Your task to perform on an android device: change the clock style Image 0: 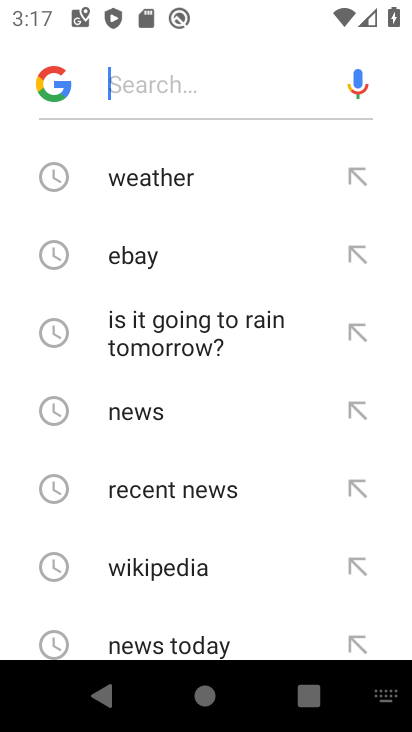
Step 0: press home button
Your task to perform on an android device: change the clock style Image 1: 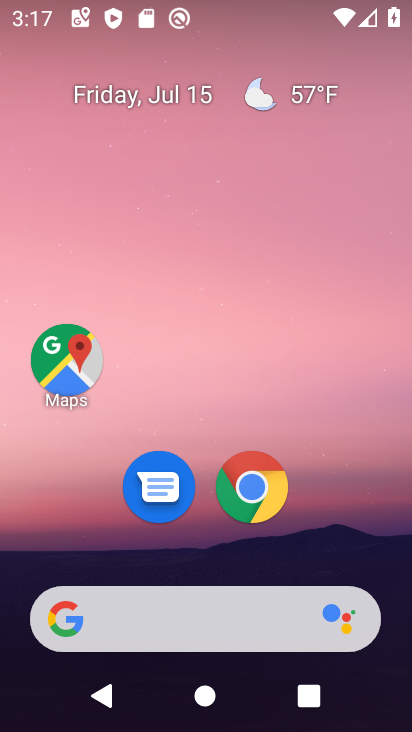
Step 1: drag from (268, 620) to (333, 179)
Your task to perform on an android device: change the clock style Image 2: 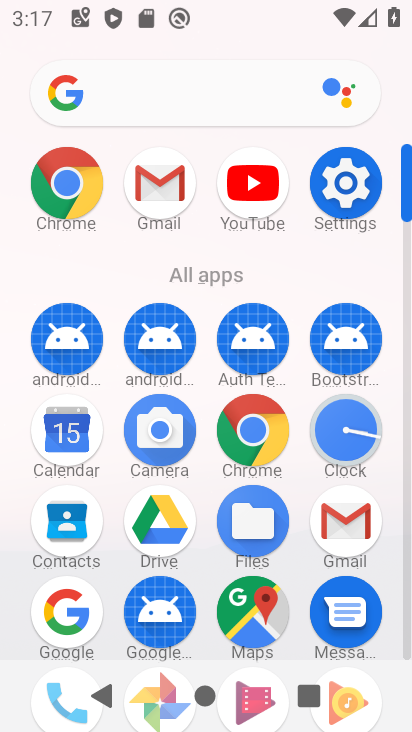
Step 2: drag from (239, 519) to (242, 340)
Your task to perform on an android device: change the clock style Image 3: 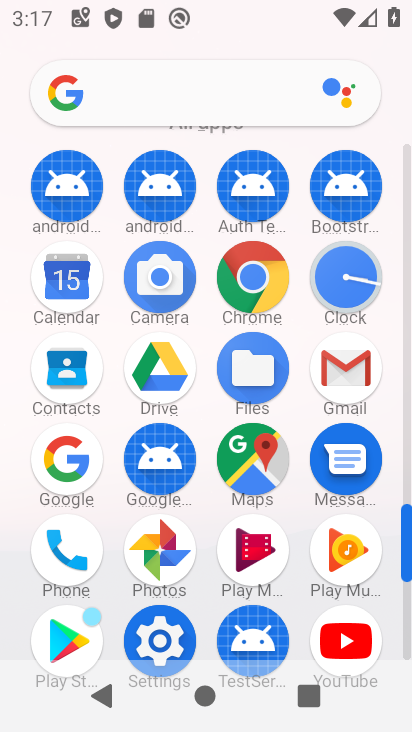
Step 3: drag from (272, 491) to (283, 353)
Your task to perform on an android device: change the clock style Image 4: 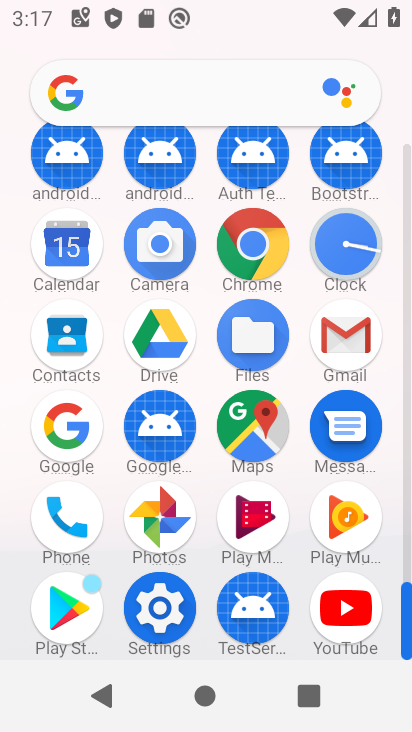
Step 4: click (341, 267)
Your task to perform on an android device: change the clock style Image 5: 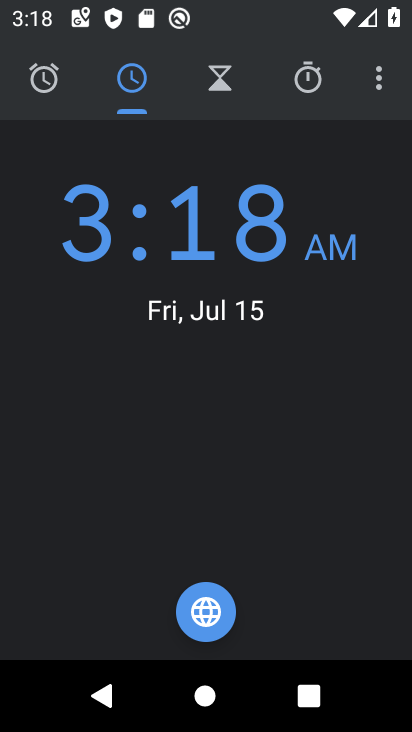
Step 5: click (386, 81)
Your task to perform on an android device: change the clock style Image 6: 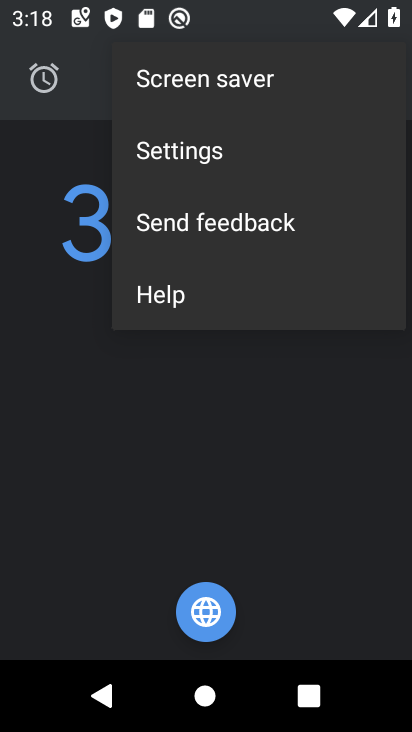
Step 6: click (213, 158)
Your task to perform on an android device: change the clock style Image 7: 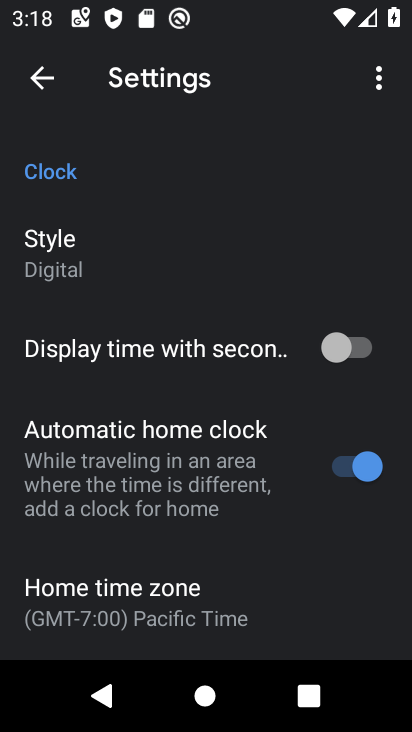
Step 7: click (82, 253)
Your task to perform on an android device: change the clock style Image 8: 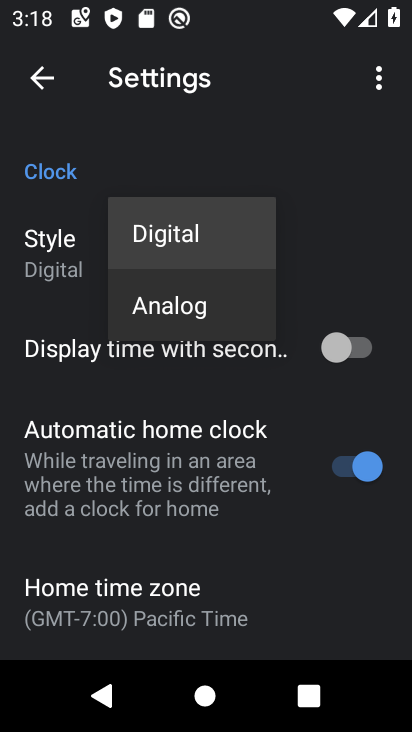
Step 8: click (205, 314)
Your task to perform on an android device: change the clock style Image 9: 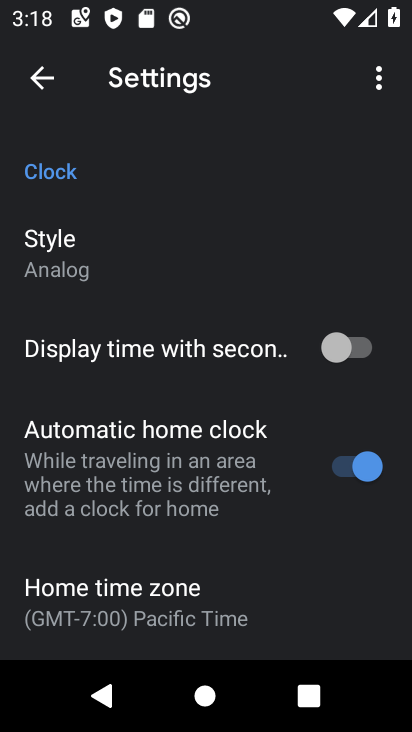
Step 9: task complete